Your task to perform on an android device: Install the Twitter app Image 0: 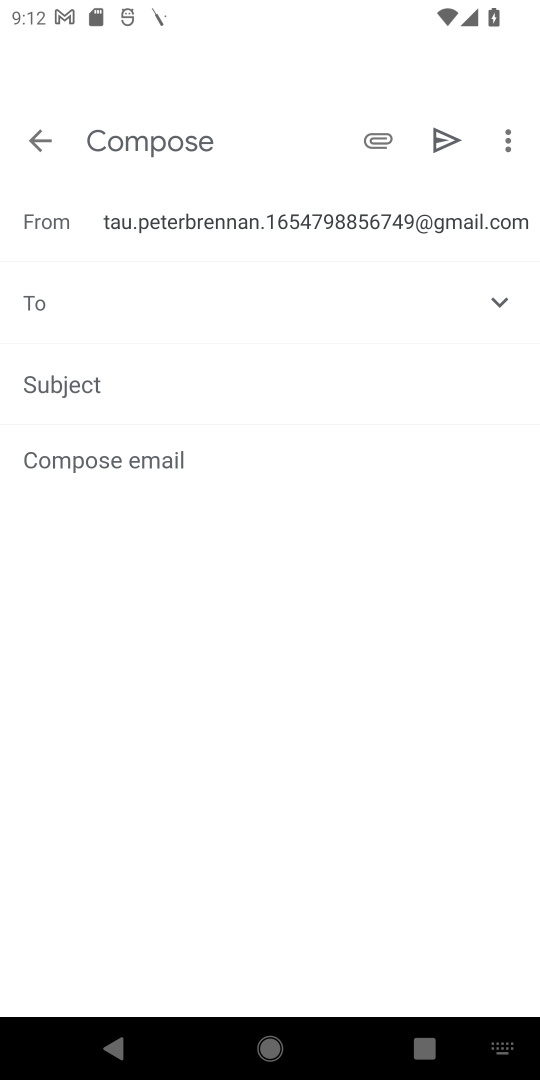
Step 0: press home button
Your task to perform on an android device: Install the Twitter app Image 1: 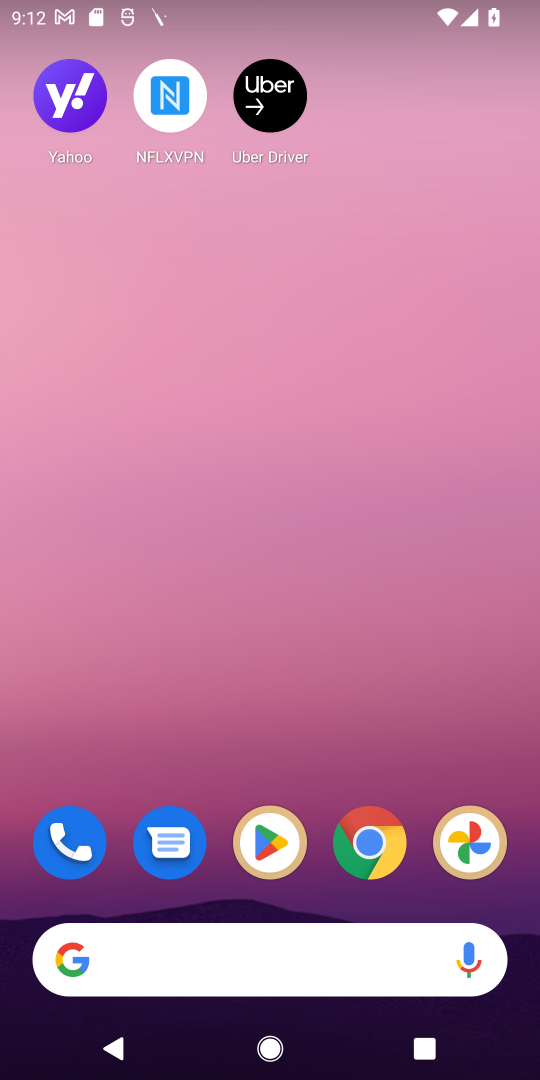
Step 1: click (369, 836)
Your task to perform on an android device: Install the Twitter app Image 2: 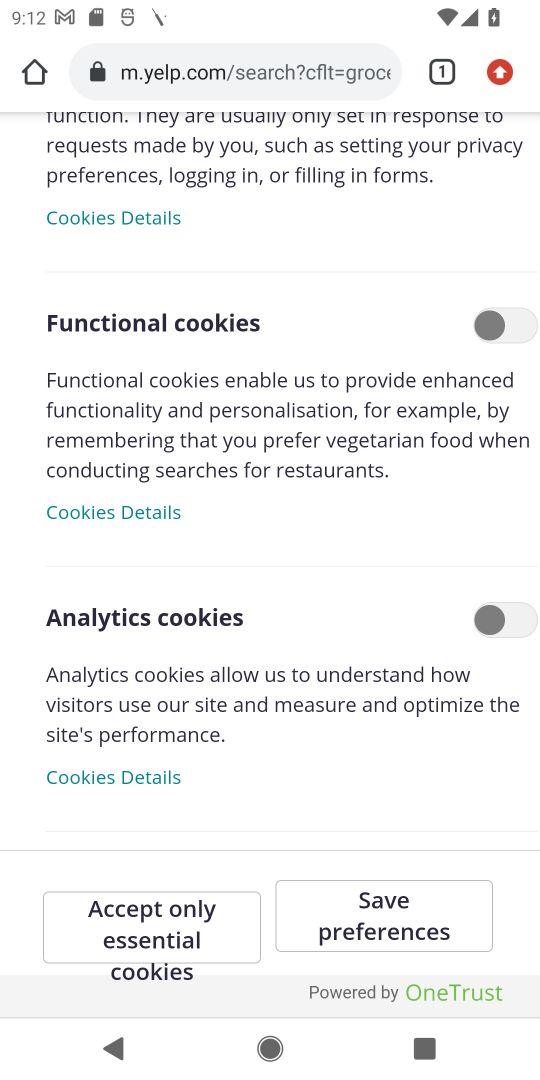
Step 2: click (222, 71)
Your task to perform on an android device: Install the Twitter app Image 3: 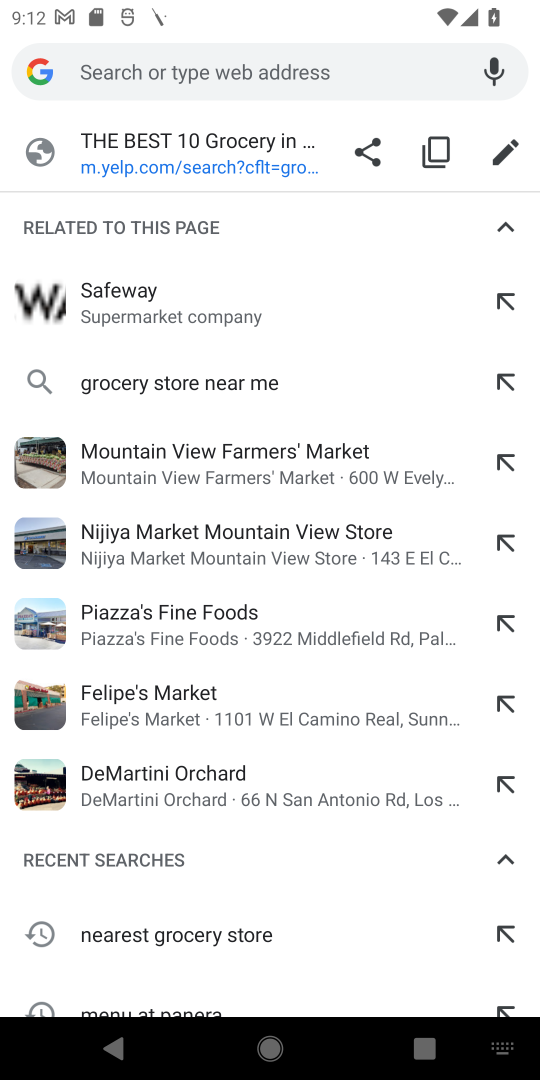
Step 3: press home button
Your task to perform on an android device: Install the Twitter app Image 4: 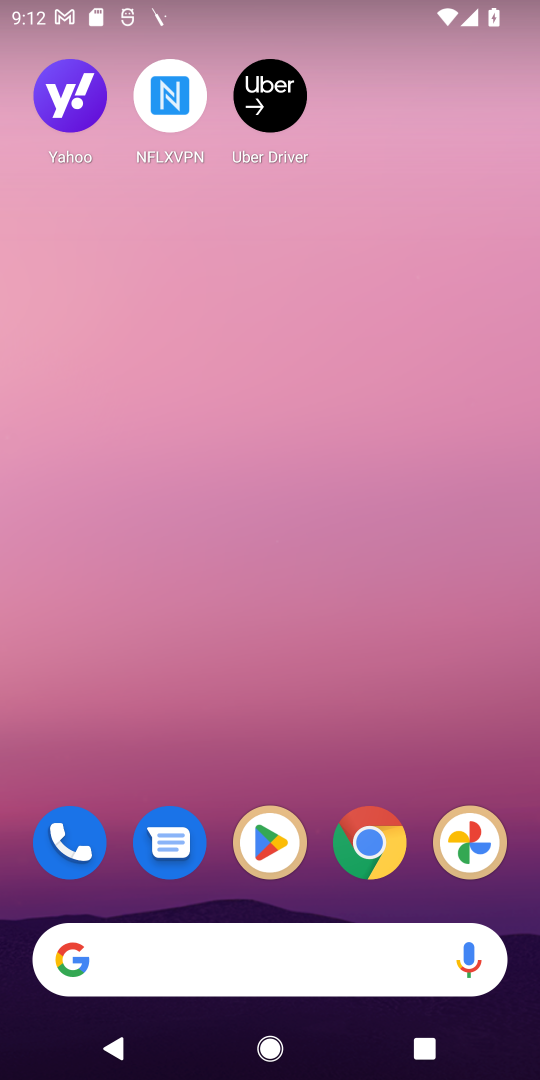
Step 4: drag from (245, 779) to (323, 139)
Your task to perform on an android device: Install the Twitter app Image 5: 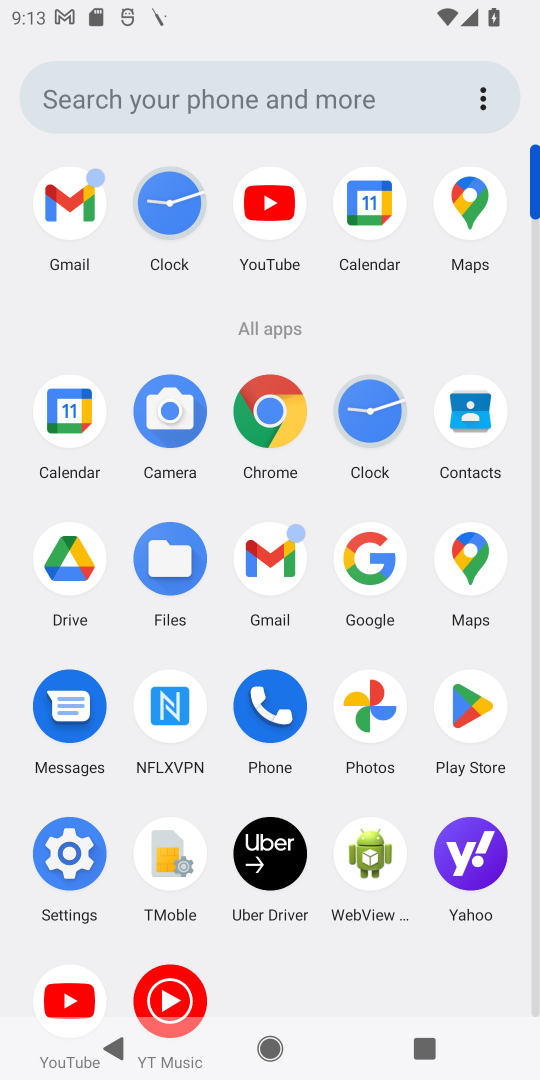
Step 5: click (464, 715)
Your task to perform on an android device: Install the Twitter app Image 6: 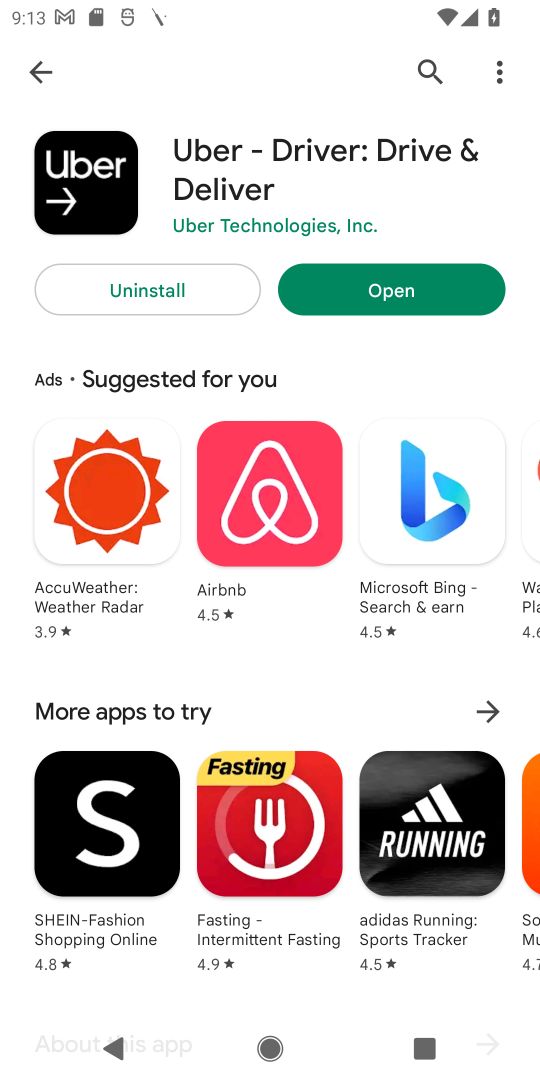
Step 6: click (435, 76)
Your task to perform on an android device: Install the Twitter app Image 7: 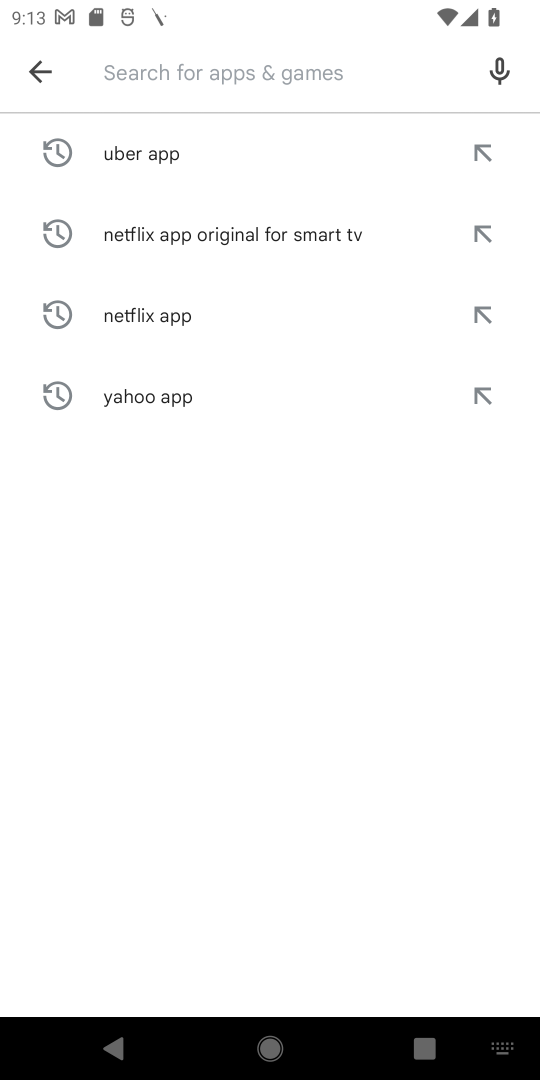
Step 7: type "intsall twitter app"
Your task to perform on an android device: Install the Twitter app Image 8: 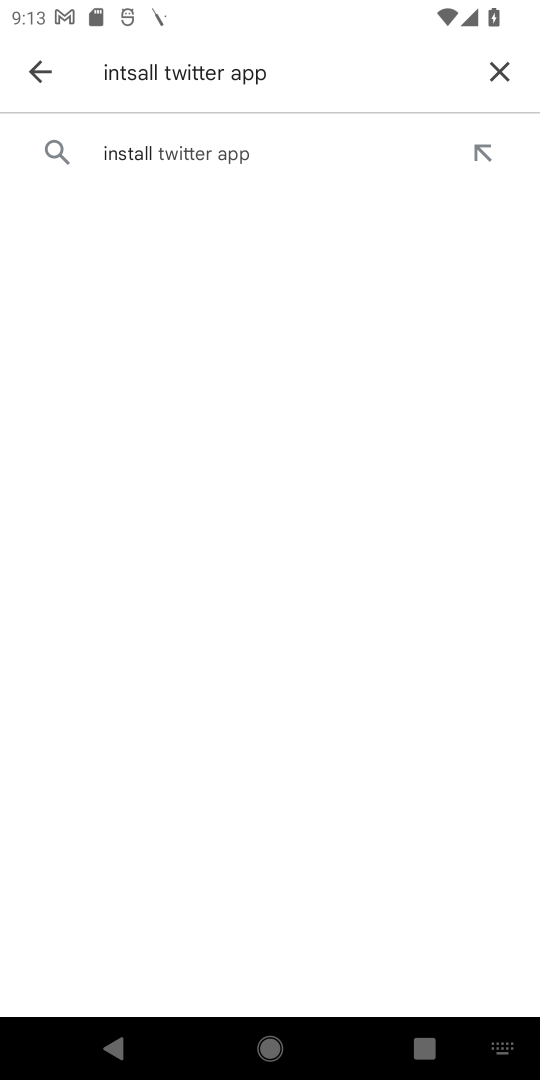
Step 8: click (226, 151)
Your task to perform on an android device: Install the Twitter app Image 9: 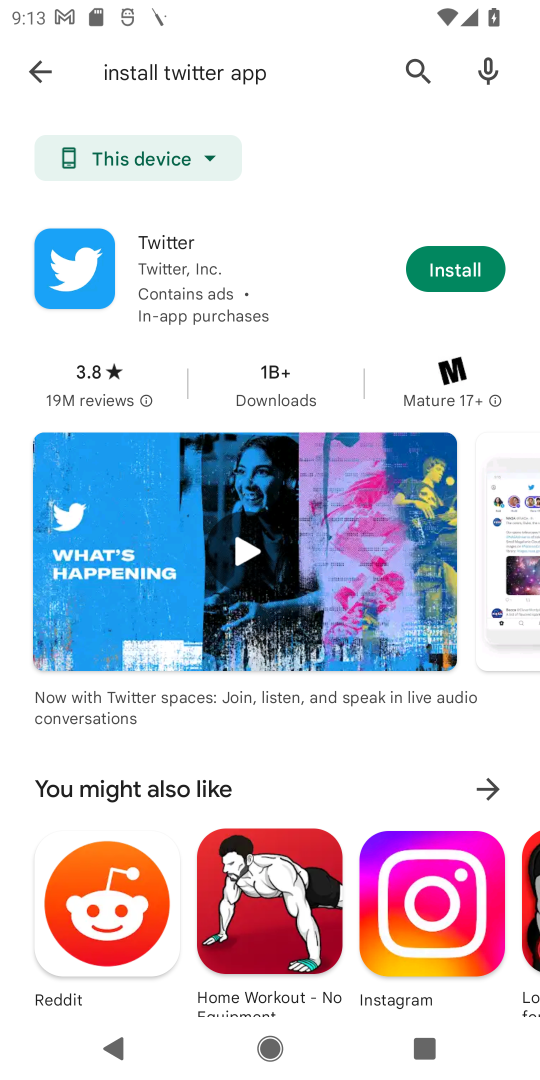
Step 9: click (467, 275)
Your task to perform on an android device: Install the Twitter app Image 10: 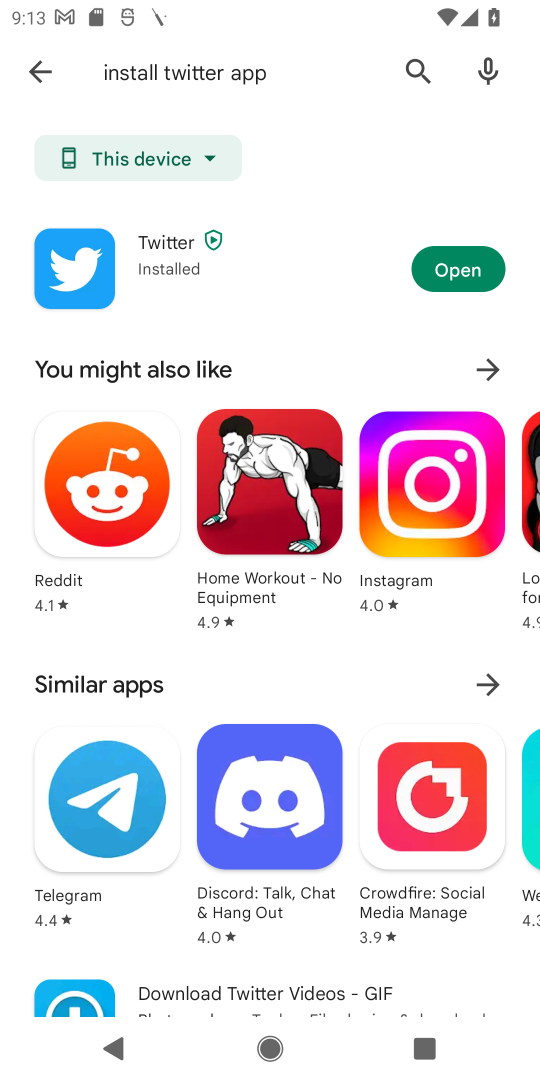
Step 10: click (466, 279)
Your task to perform on an android device: Install the Twitter app Image 11: 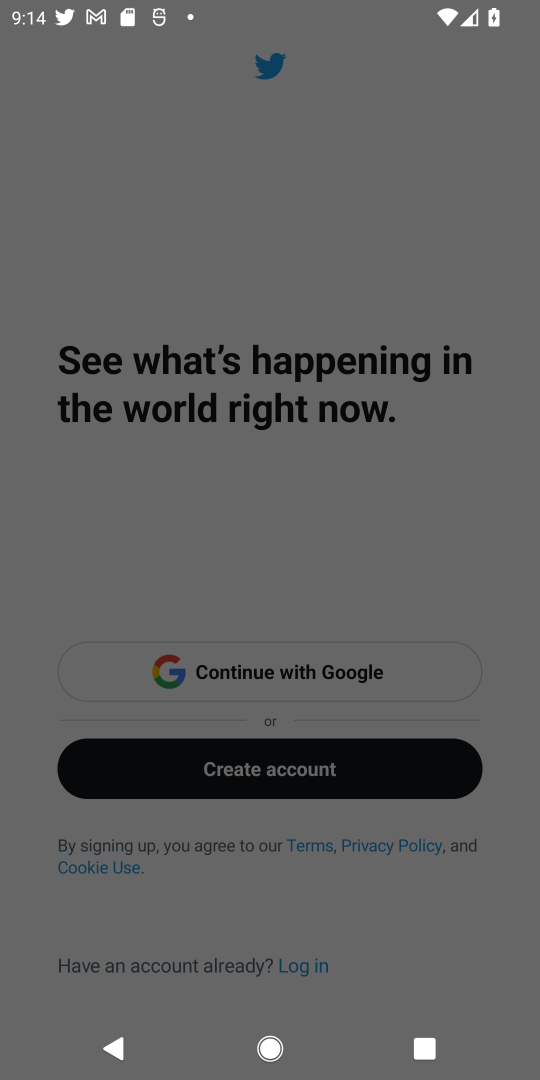
Step 11: task complete